Your task to perform on an android device: Search for Mexican restaurants on Maps Image 0: 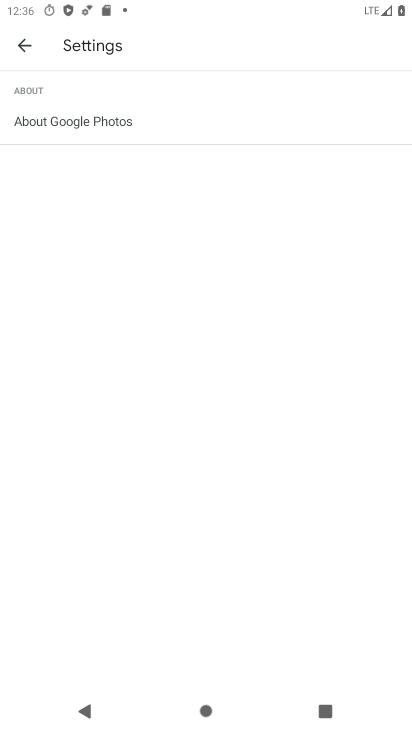
Step 0: press home button
Your task to perform on an android device: Search for Mexican restaurants on Maps Image 1: 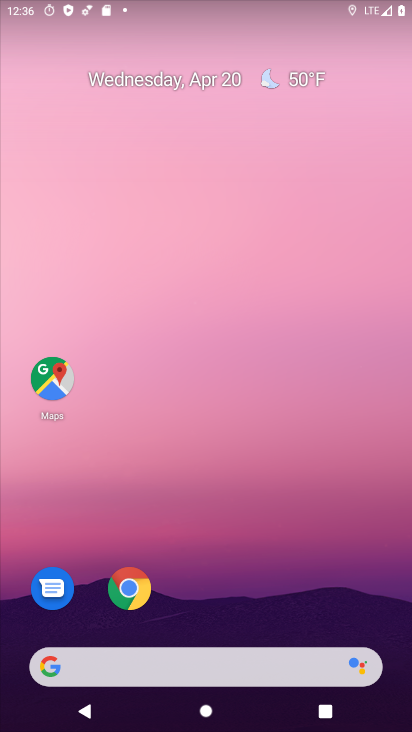
Step 1: click (50, 372)
Your task to perform on an android device: Search for Mexican restaurants on Maps Image 2: 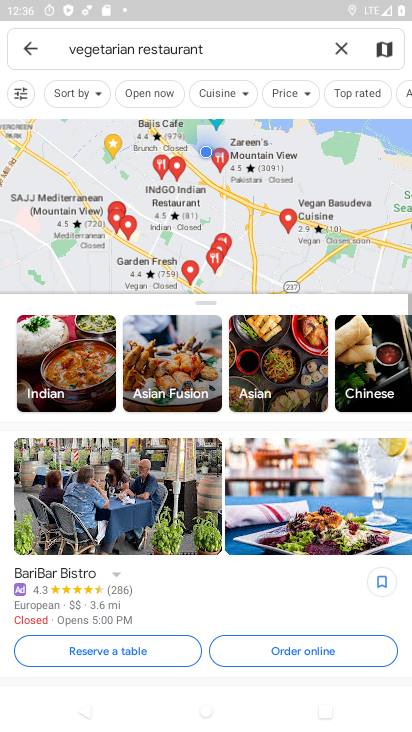
Step 2: click (341, 45)
Your task to perform on an android device: Search for Mexican restaurants on Maps Image 3: 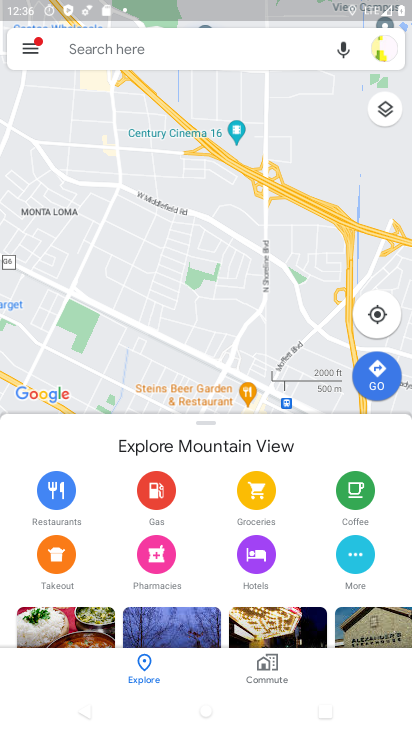
Step 3: click (223, 40)
Your task to perform on an android device: Search for Mexican restaurants on Maps Image 4: 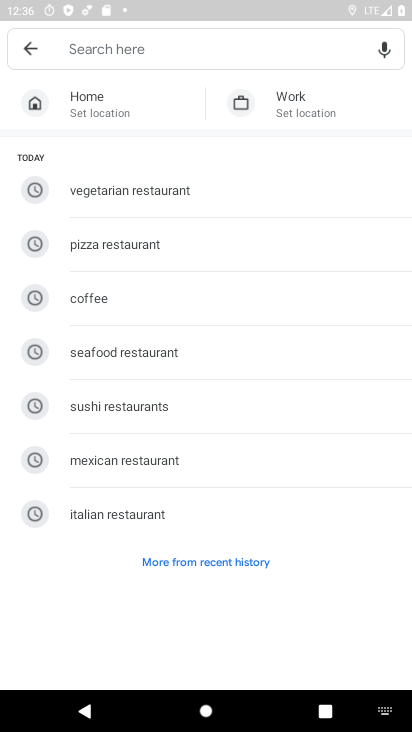
Step 4: click (140, 459)
Your task to perform on an android device: Search for Mexican restaurants on Maps Image 5: 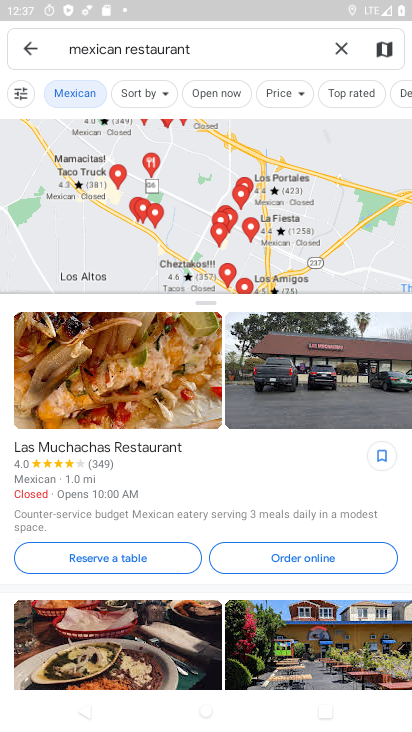
Step 5: task complete